Your task to perform on an android device: View the shopping cart on newegg. Search for jbl flip 4 on newegg, select the first entry, and add it to the cart. Image 0: 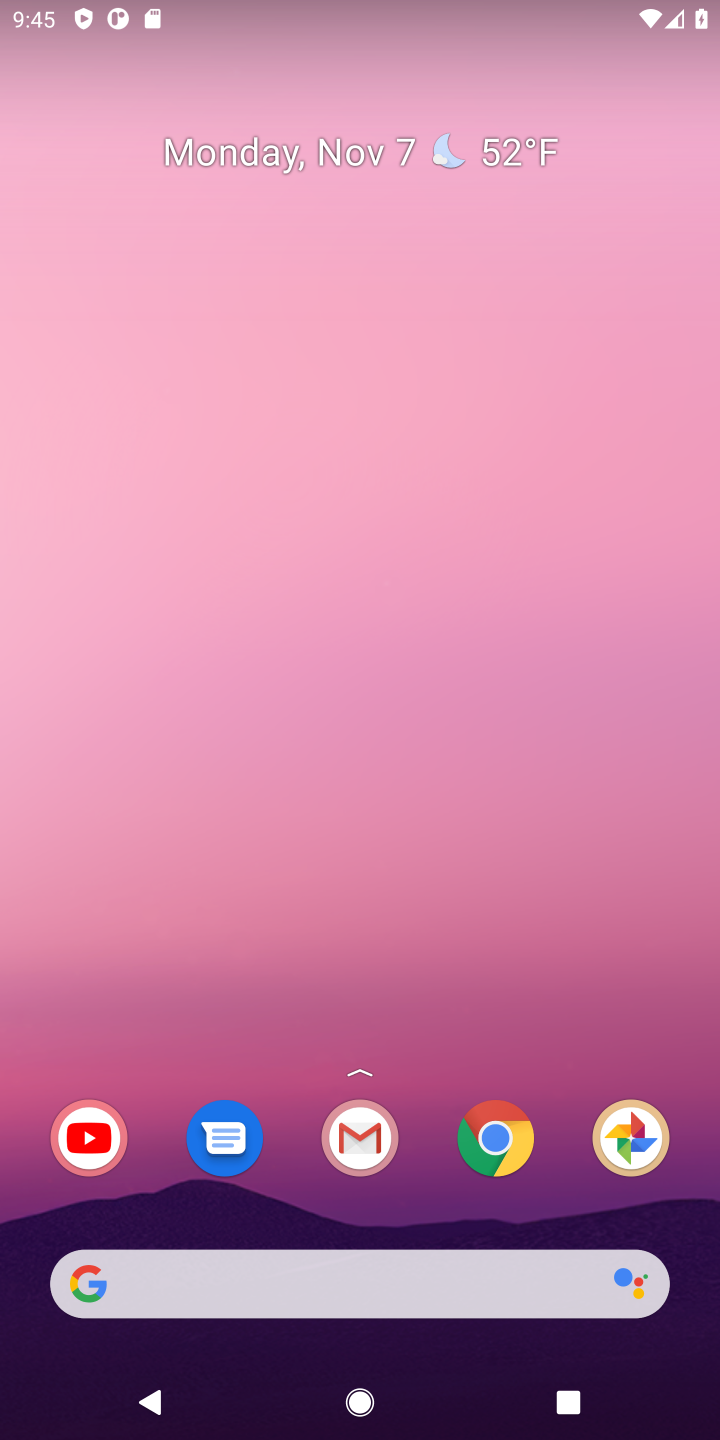
Step 0: drag from (429, 1179) to (418, 444)
Your task to perform on an android device: View the shopping cart on newegg. Search for jbl flip 4 on newegg, select the first entry, and add it to the cart. Image 1: 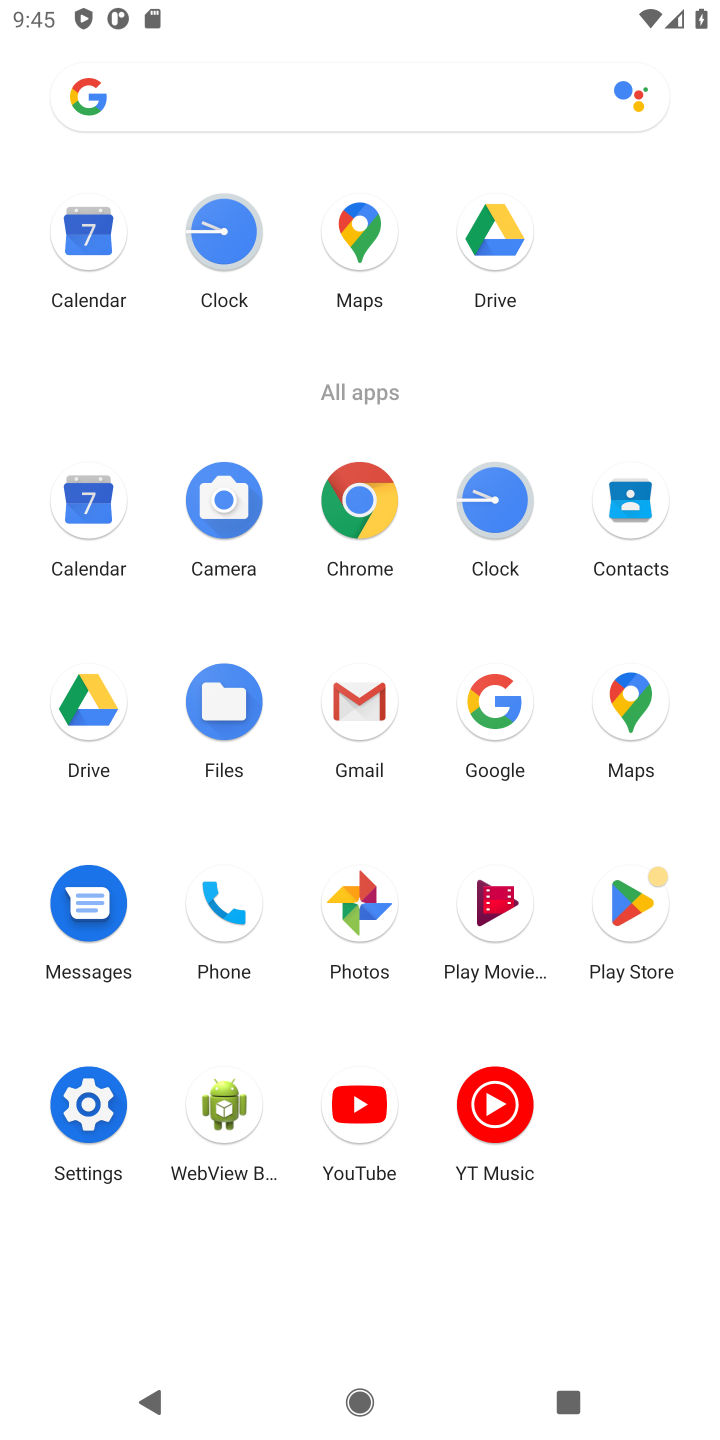
Step 1: click (479, 754)
Your task to perform on an android device: View the shopping cart on newegg. Search for jbl flip 4 on newegg, select the first entry, and add it to the cart. Image 2: 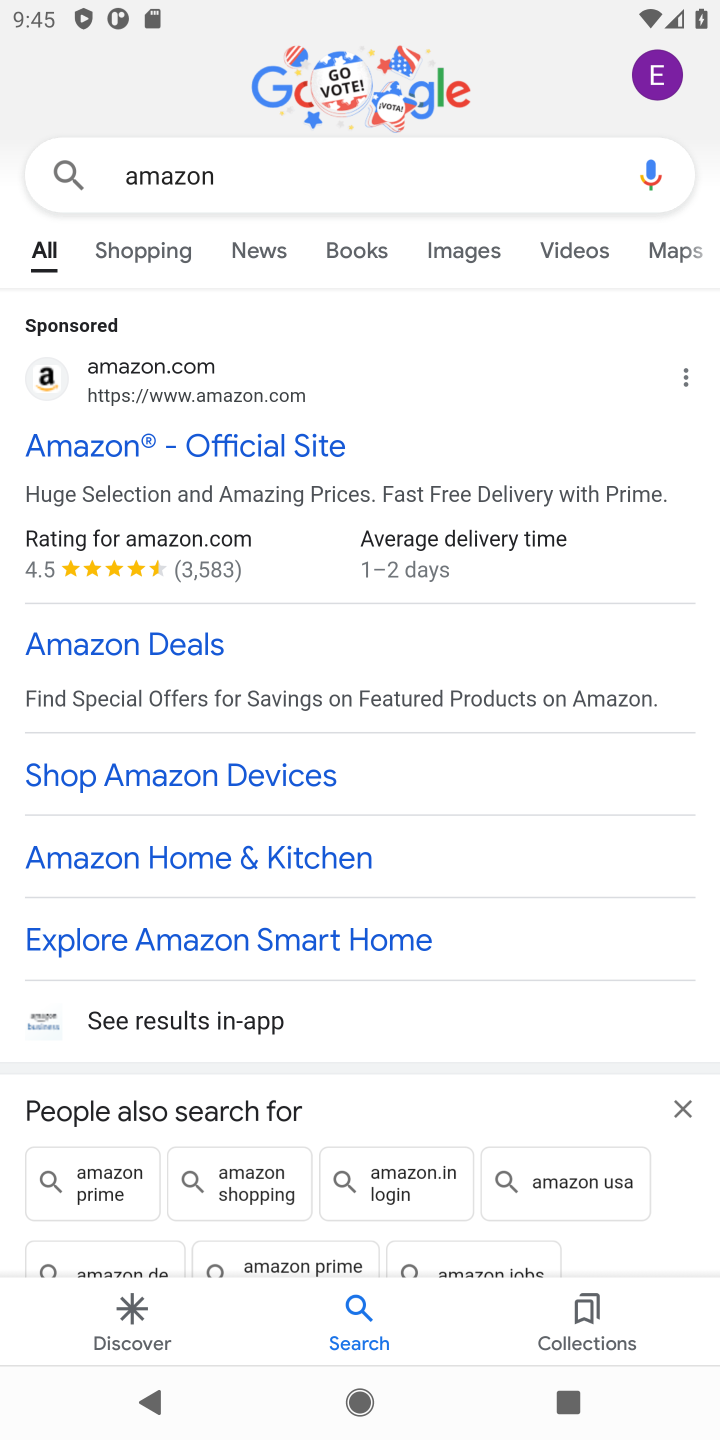
Step 2: click (467, 166)
Your task to perform on an android device: View the shopping cart on newegg. Search for jbl flip 4 on newegg, select the first entry, and add it to the cart. Image 3: 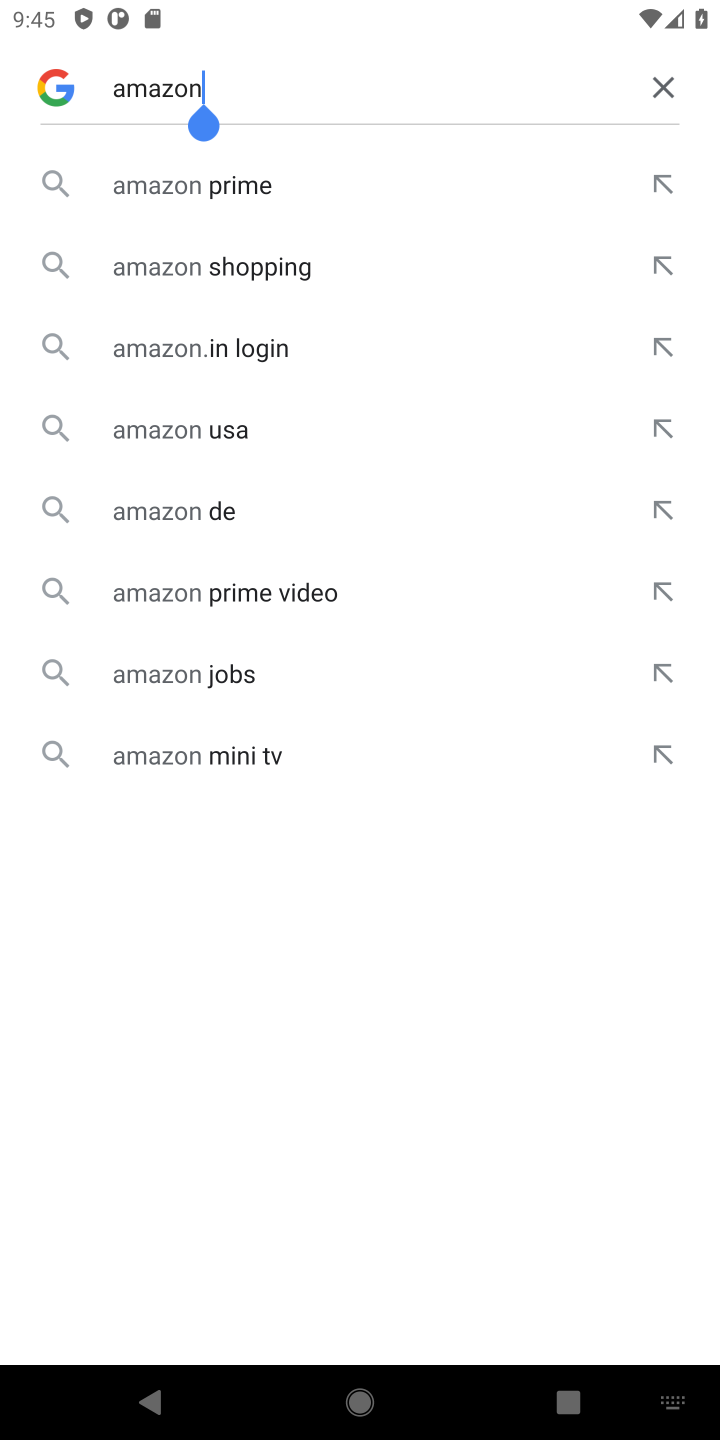
Step 3: click (674, 106)
Your task to perform on an android device: View the shopping cart on newegg. Search for jbl flip 4 on newegg, select the first entry, and add it to the cart. Image 4: 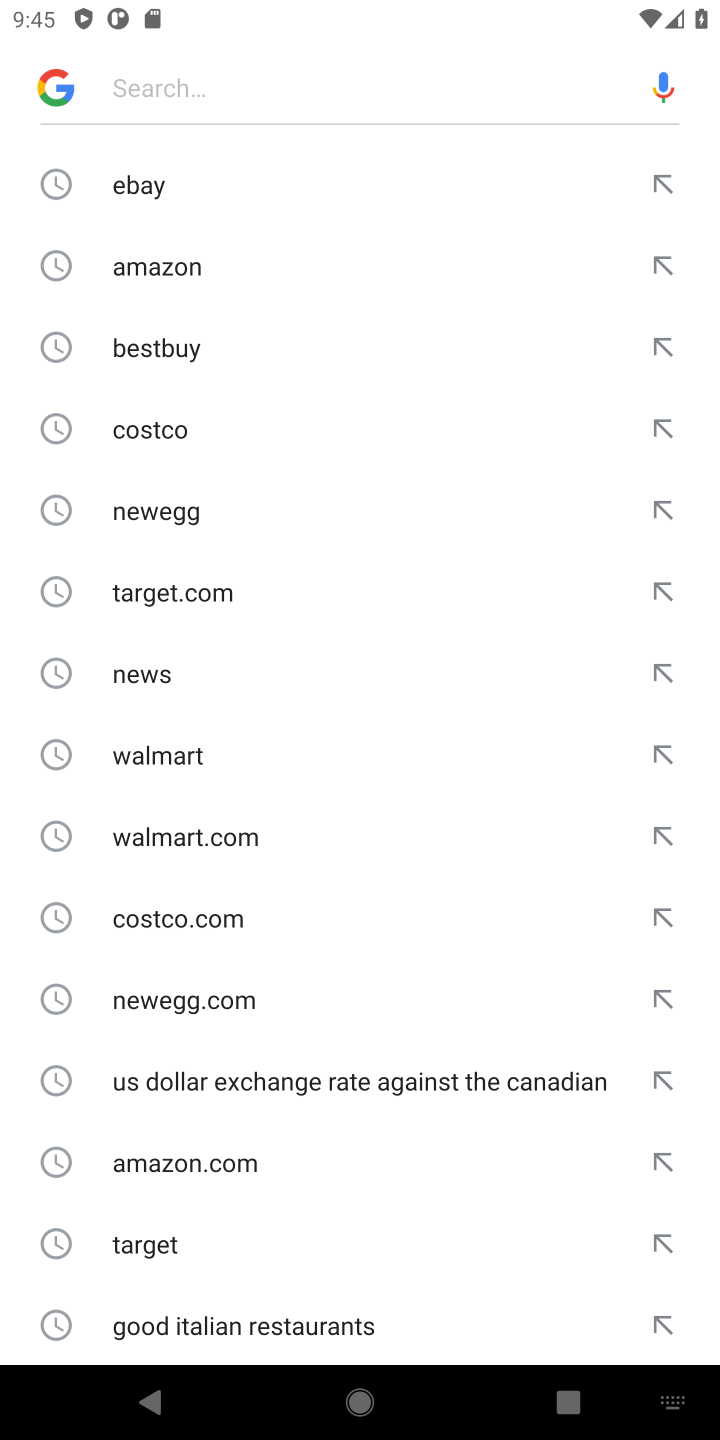
Step 4: type "newegg"
Your task to perform on an android device: View the shopping cart on newegg. Search for jbl flip 4 on newegg, select the first entry, and add it to the cart. Image 5: 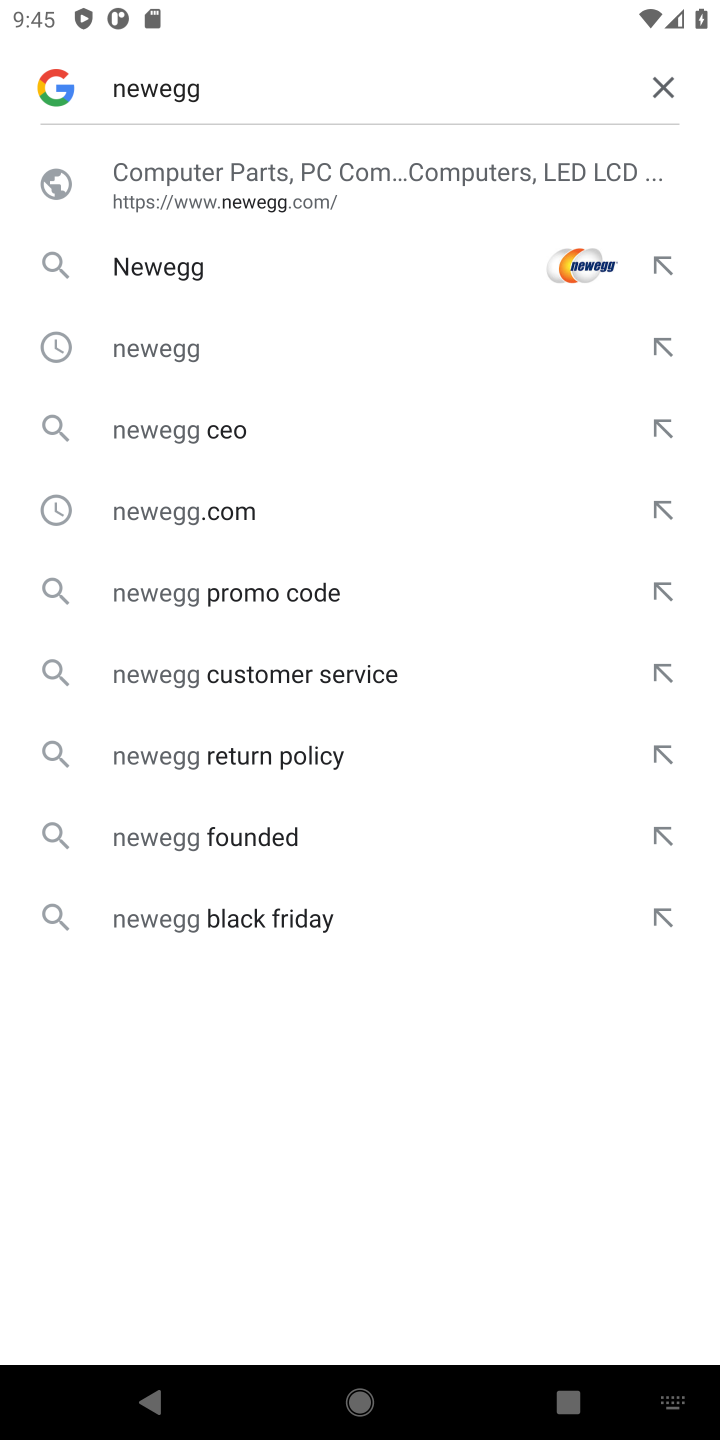
Step 5: click (318, 190)
Your task to perform on an android device: View the shopping cart on newegg. Search for jbl flip 4 on newegg, select the first entry, and add it to the cart. Image 6: 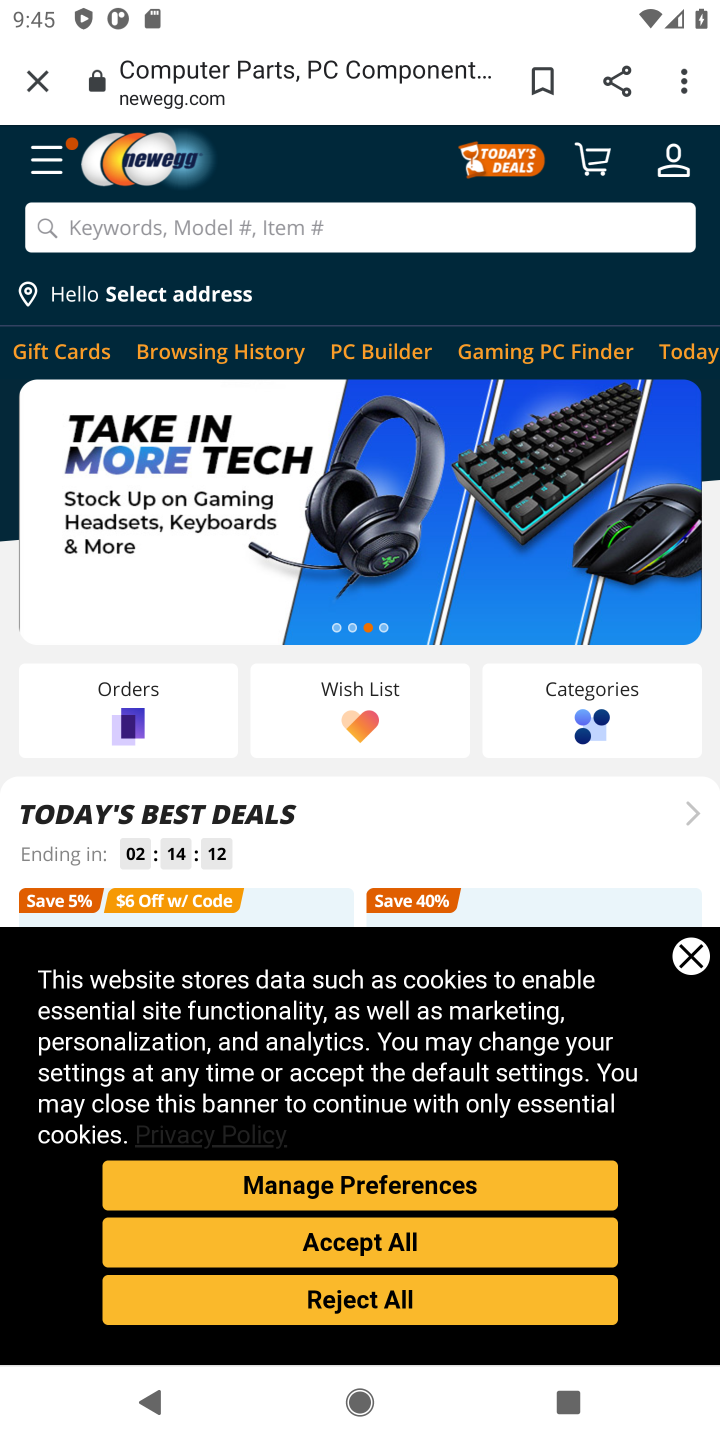
Step 6: click (308, 233)
Your task to perform on an android device: View the shopping cart on newegg. Search for jbl flip 4 on newegg, select the first entry, and add it to the cart. Image 7: 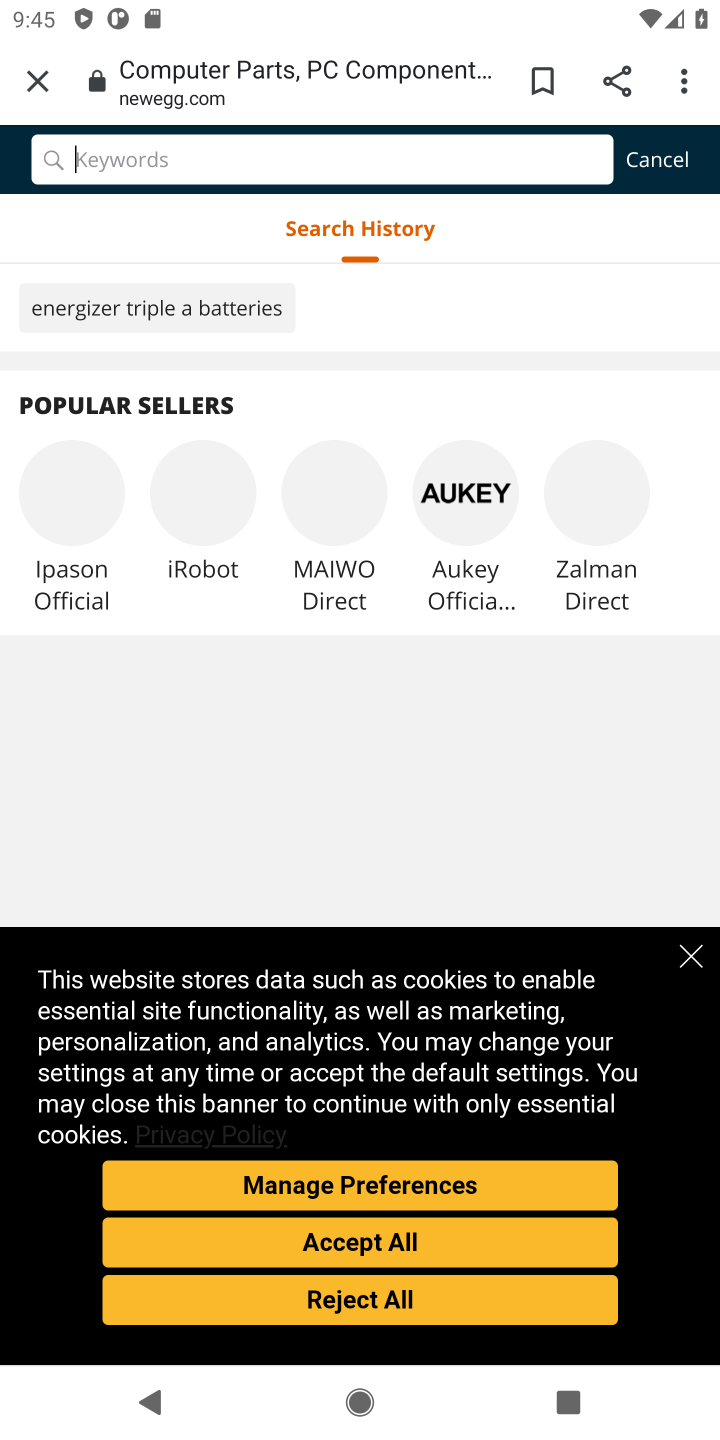
Step 7: type "jbl flip 4"
Your task to perform on an android device: View the shopping cart on newegg. Search for jbl flip 4 on newegg, select the first entry, and add it to the cart. Image 8: 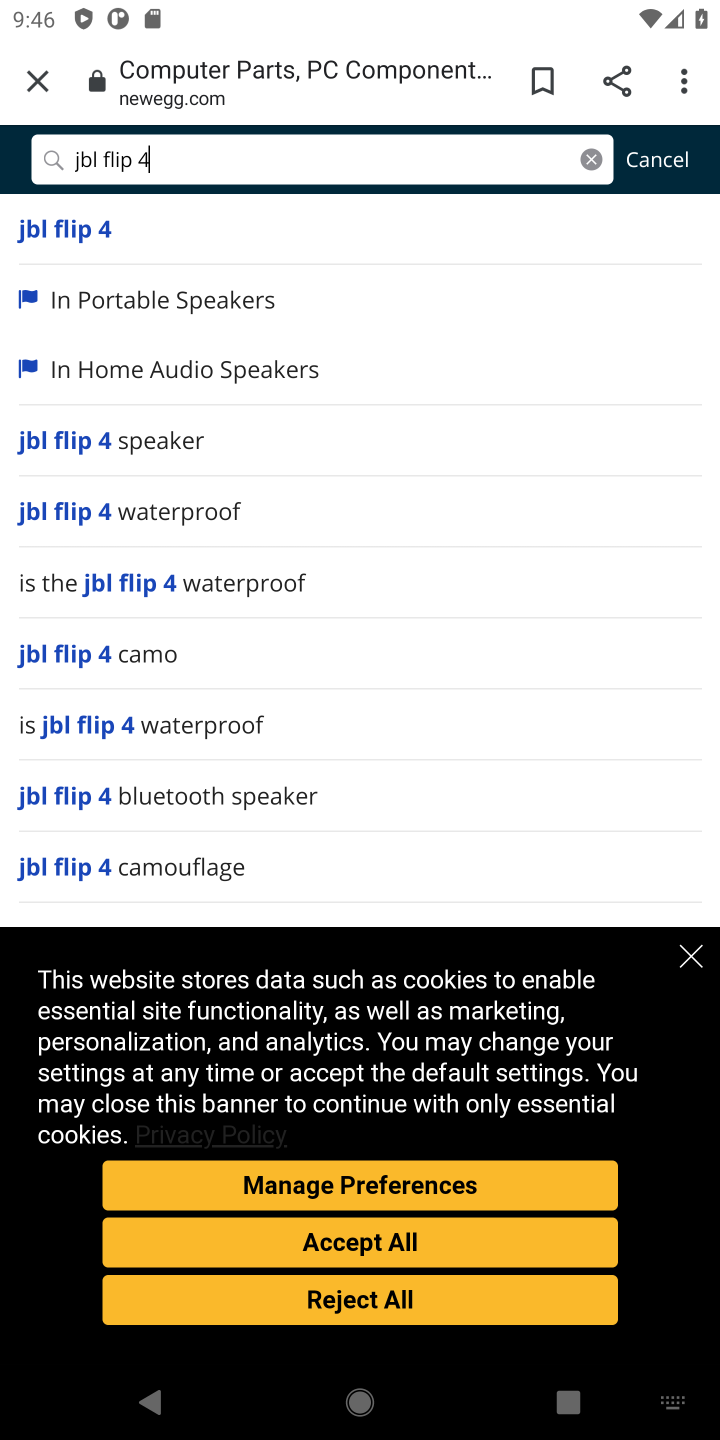
Step 8: click (349, 237)
Your task to perform on an android device: View the shopping cart on newegg. Search for jbl flip 4 on newegg, select the first entry, and add it to the cart. Image 9: 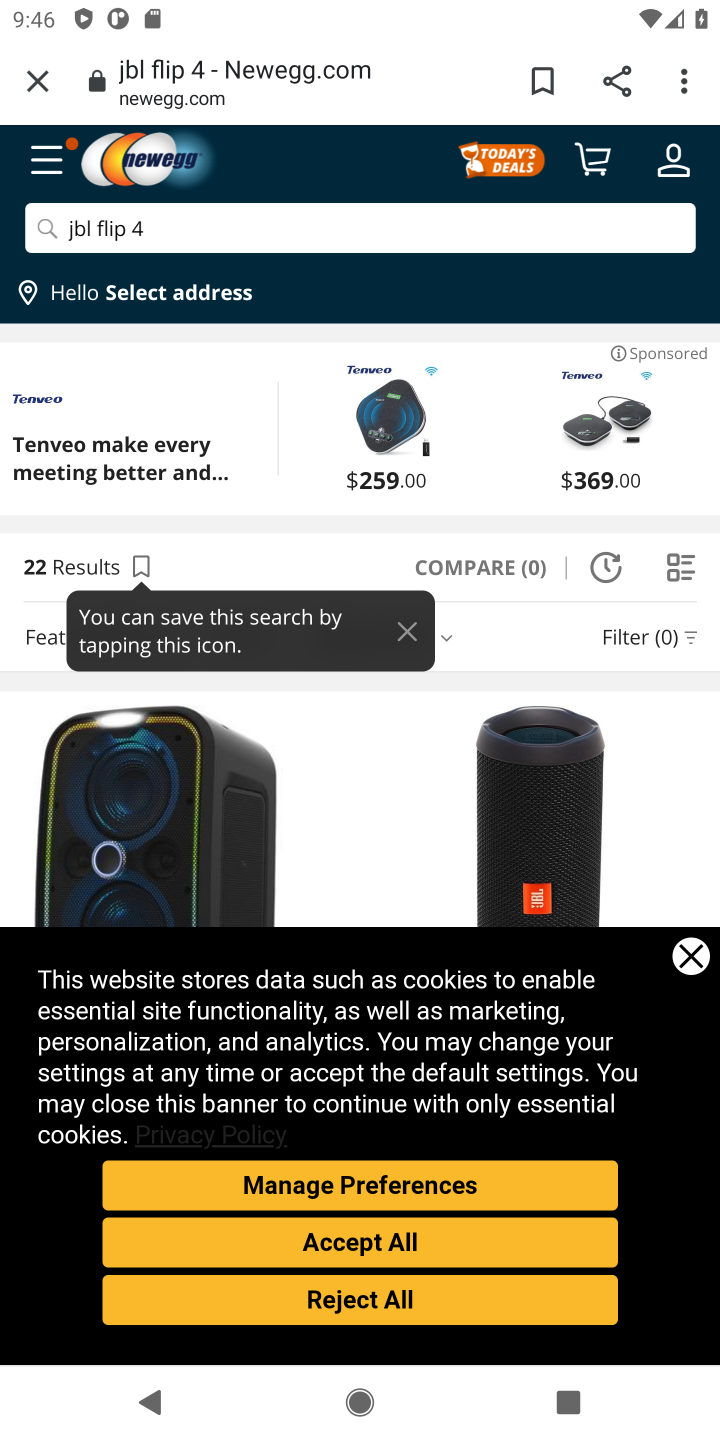
Step 9: drag from (450, 751) to (445, 455)
Your task to perform on an android device: View the shopping cart on newegg. Search for jbl flip 4 on newegg, select the first entry, and add it to the cart. Image 10: 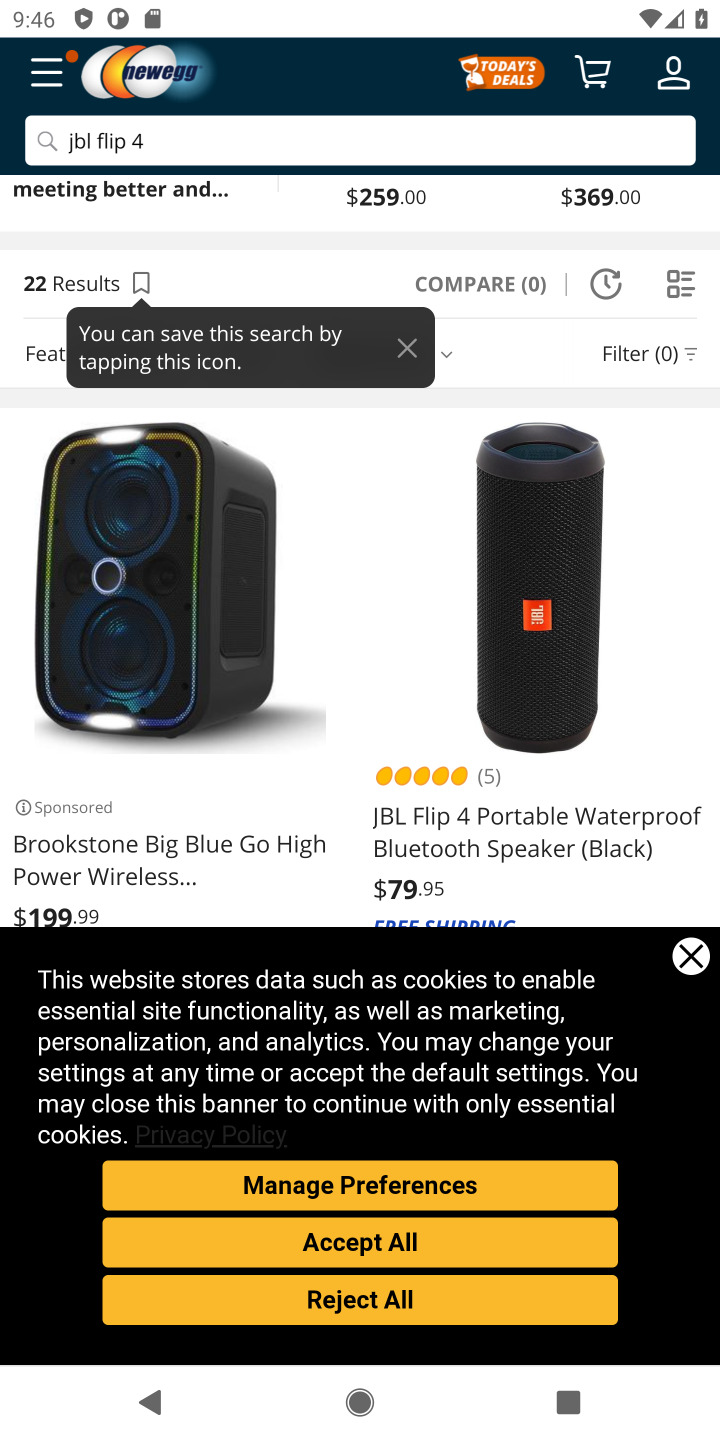
Step 10: click (515, 612)
Your task to perform on an android device: View the shopping cart on newegg. Search for jbl flip 4 on newegg, select the first entry, and add it to the cart. Image 11: 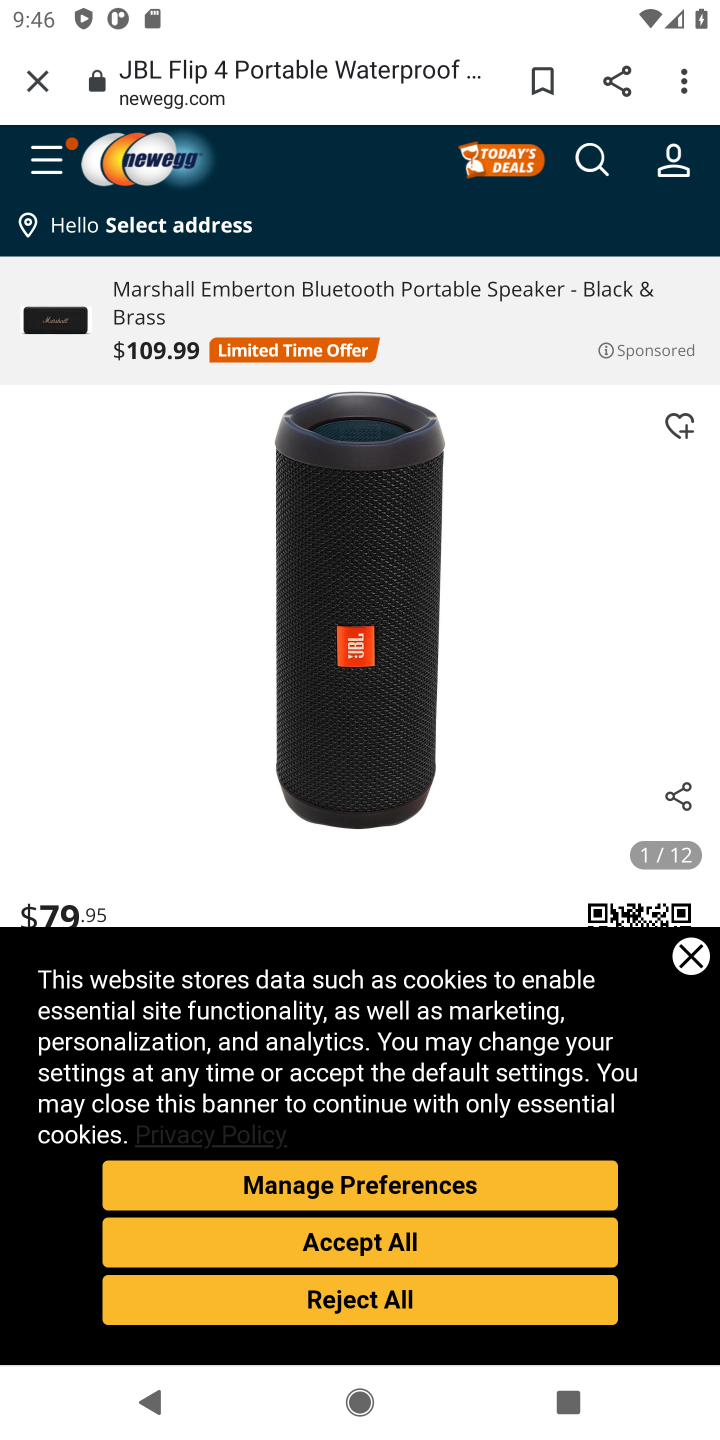
Step 11: click (386, 1234)
Your task to perform on an android device: View the shopping cart on newegg. Search for jbl flip 4 on newegg, select the first entry, and add it to the cart. Image 12: 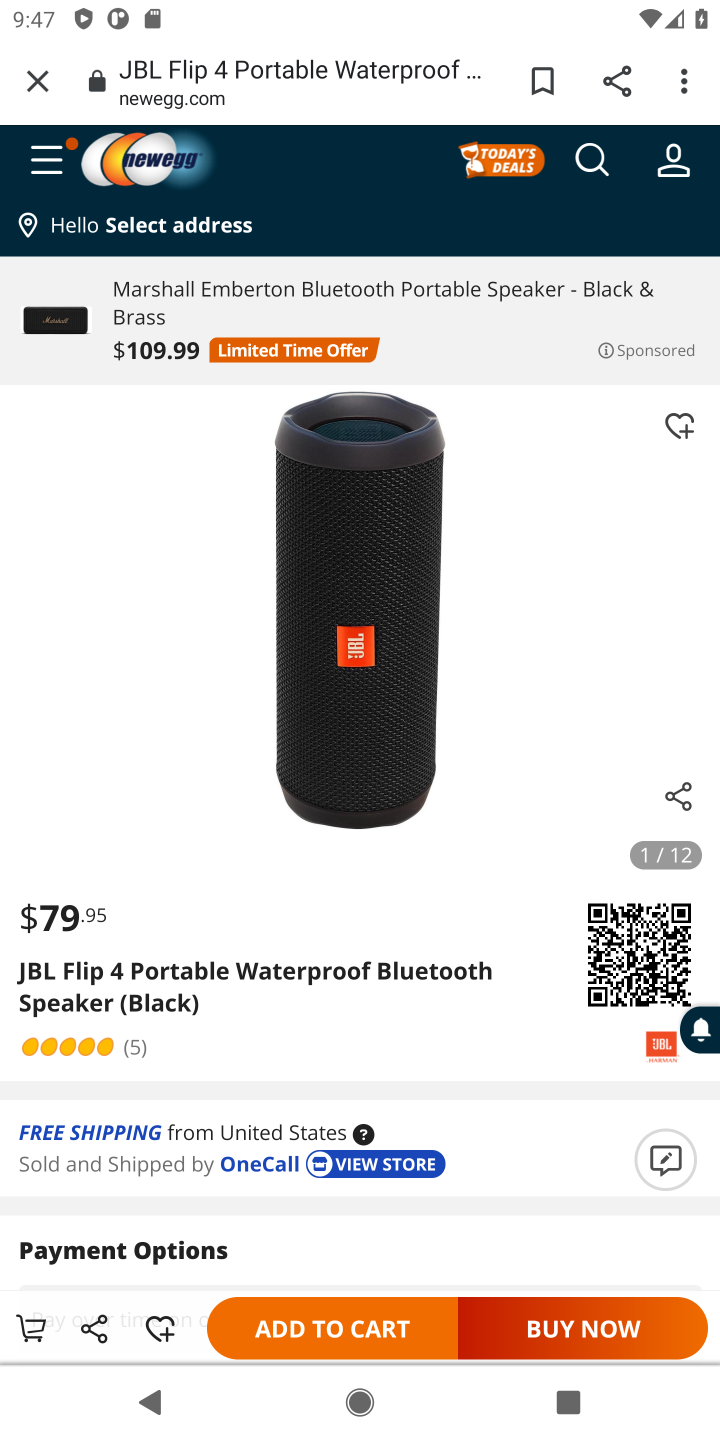
Step 12: click (358, 1320)
Your task to perform on an android device: View the shopping cart on newegg. Search for jbl flip 4 on newegg, select the first entry, and add it to the cart. Image 13: 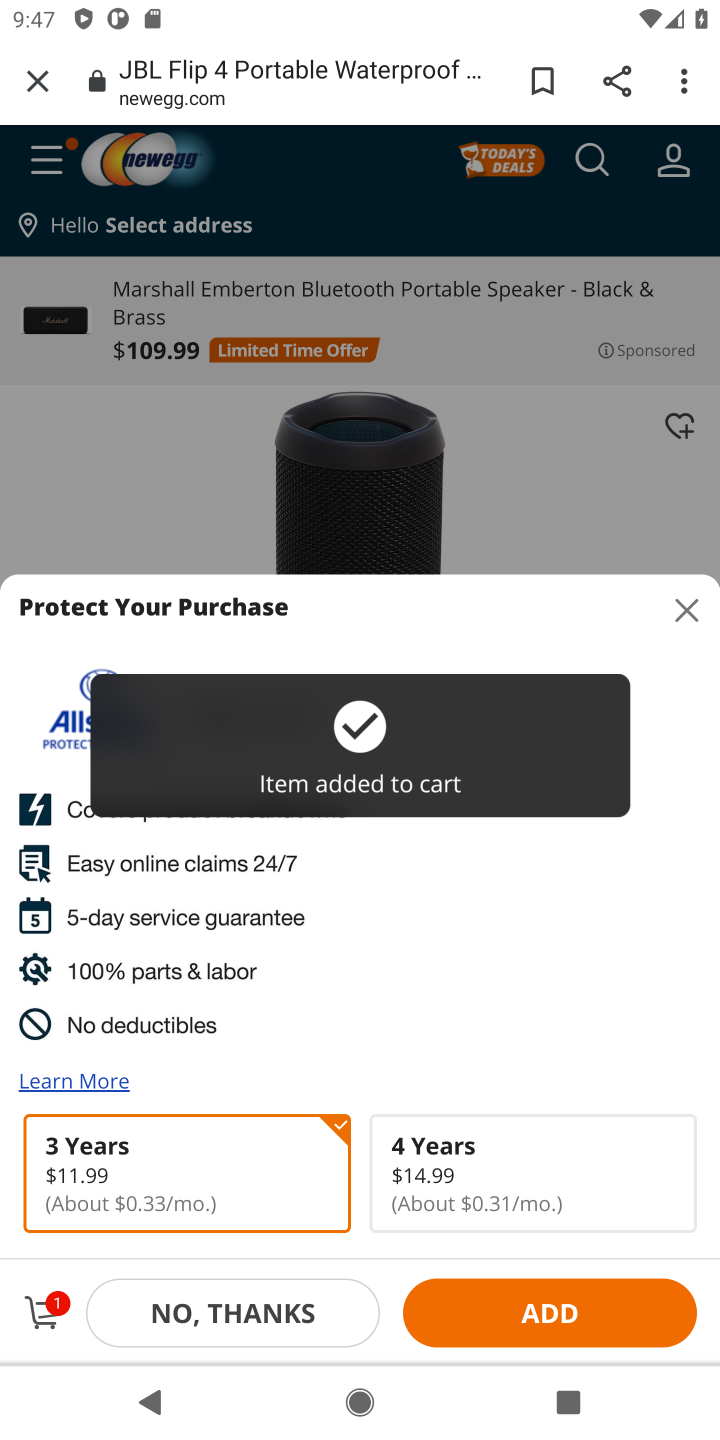
Step 13: task complete